Your task to perform on an android device: toggle location history Image 0: 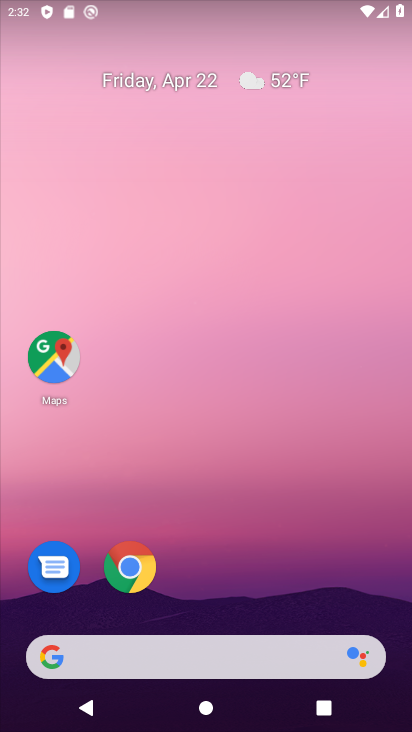
Step 0: drag from (220, 560) to (162, 88)
Your task to perform on an android device: toggle location history Image 1: 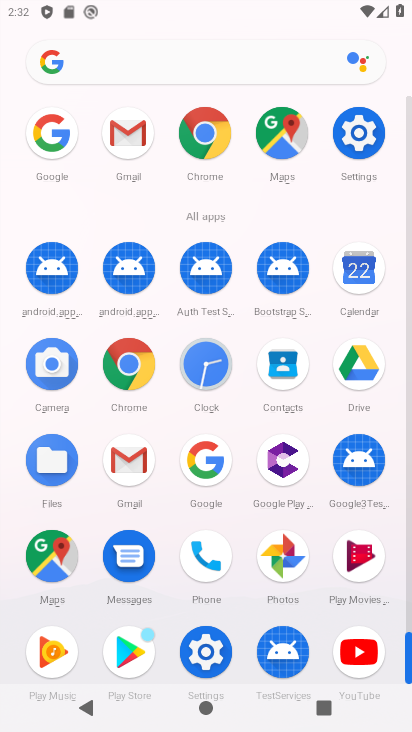
Step 1: click (373, 130)
Your task to perform on an android device: toggle location history Image 2: 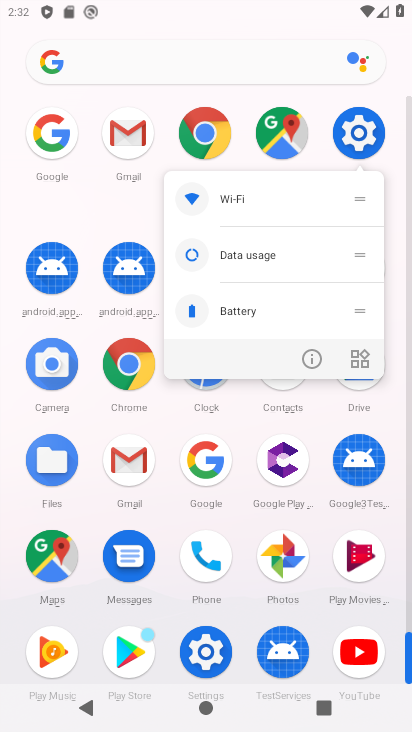
Step 2: click (349, 138)
Your task to perform on an android device: toggle location history Image 3: 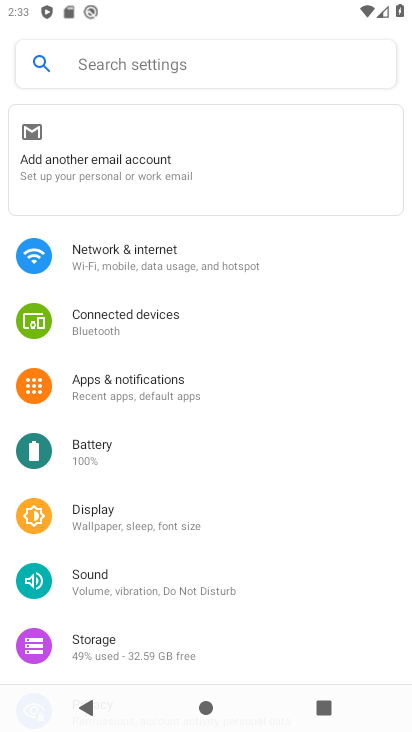
Step 3: drag from (185, 555) to (192, 242)
Your task to perform on an android device: toggle location history Image 4: 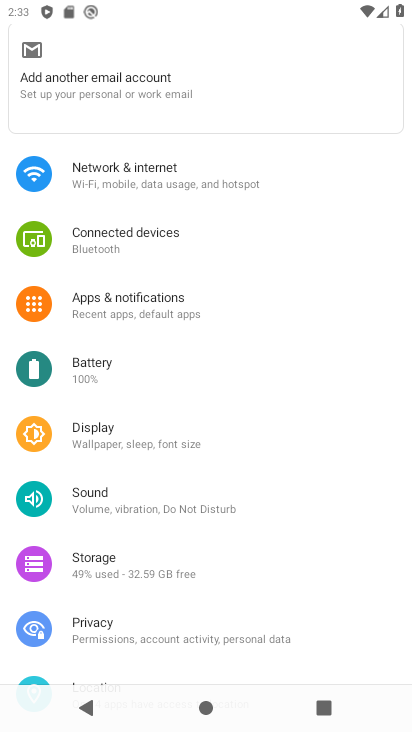
Step 4: drag from (186, 543) to (167, 183)
Your task to perform on an android device: toggle location history Image 5: 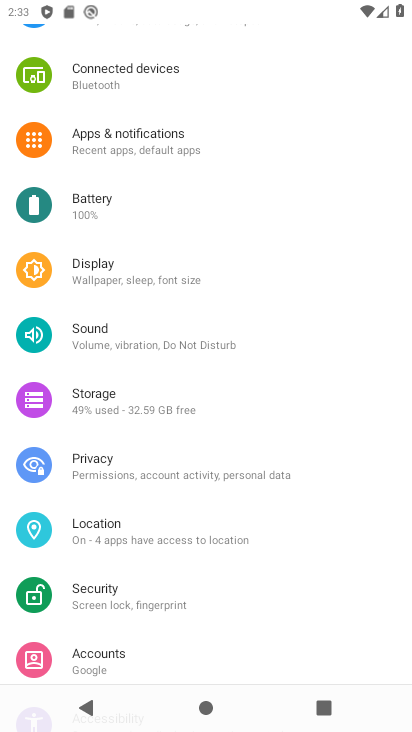
Step 5: click (168, 538)
Your task to perform on an android device: toggle location history Image 6: 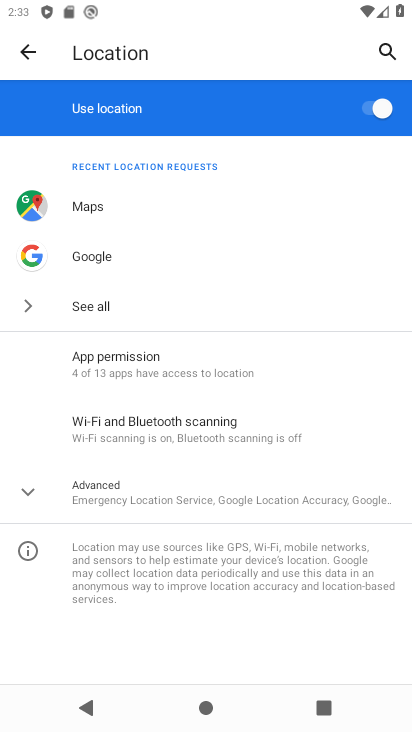
Step 6: click (185, 429)
Your task to perform on an android device: toggle location history Image 7: 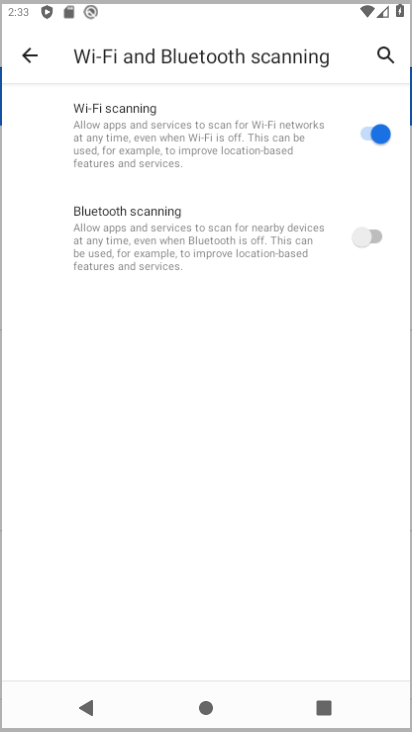
Step 7: click (177, 488)
Your task to perform on an android device: toggle location history Image 8: 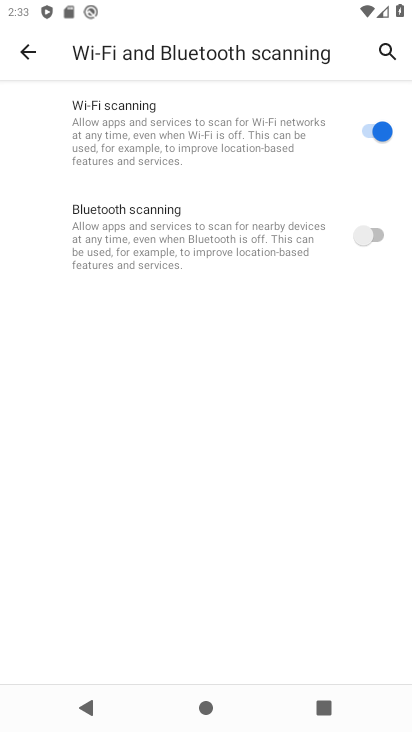
Step 8: click (32, 50)
Your task to perform on an android device: toggle location history Image 9: 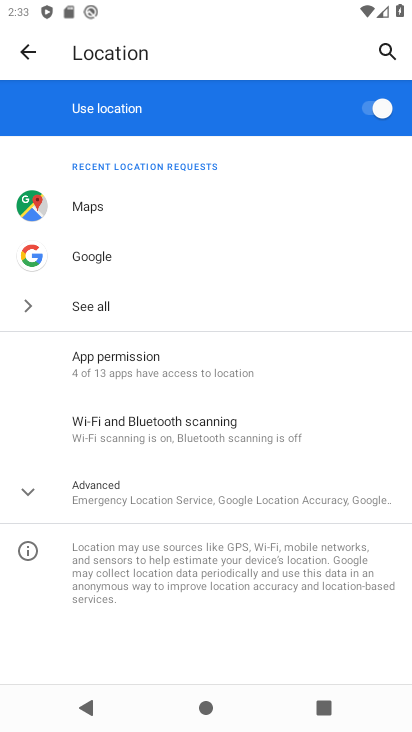
Step 9: click (142, 485)
Your task to perform on an android device: toggle location history Image 10: 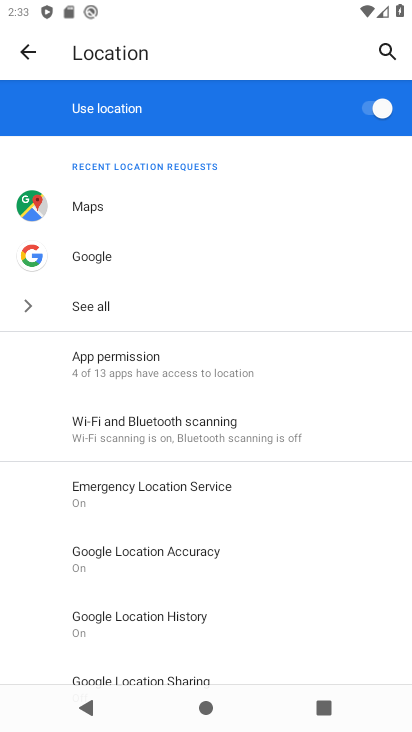
Step 10: click (193, 614)
Your task to perform on an android device: toggle location history Image 11: 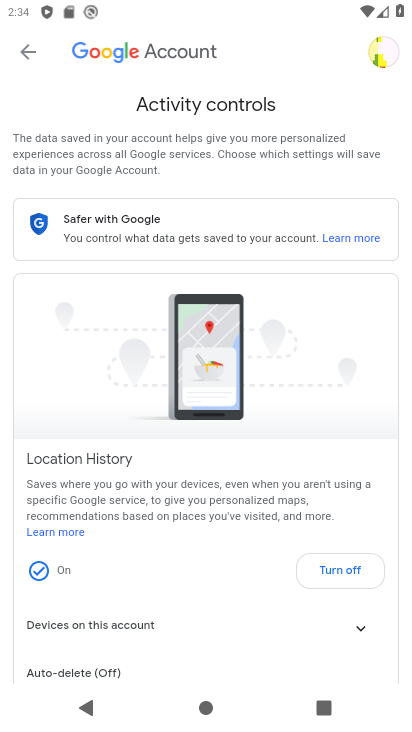
Step 11: click (334, 565)
Your task to perform on an android device: toggle location history Image 12: 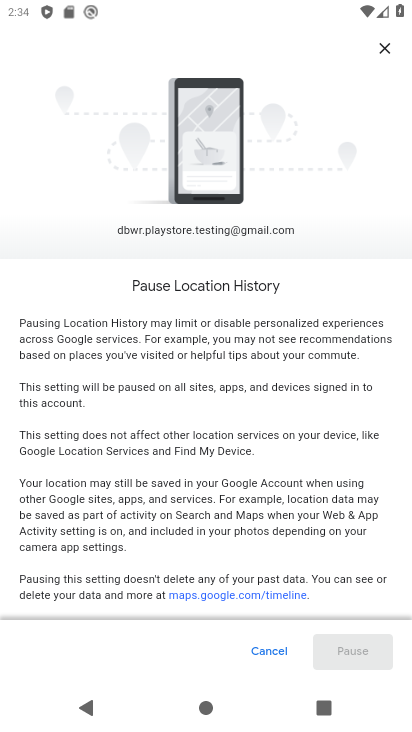
Step 12: drag from (247, 517) to (200, 112)
Your task to perform on an android device: toggle location history Image 13: 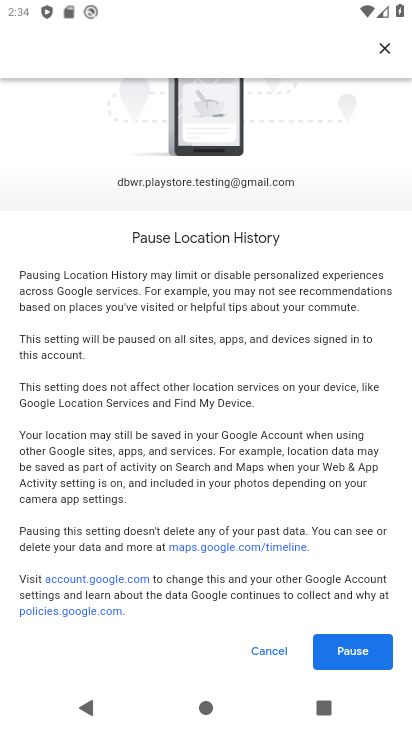
Step 13: drag from (192, 523) to (199, 179)
Your task to perform on an android device: toggle location history Image 14: 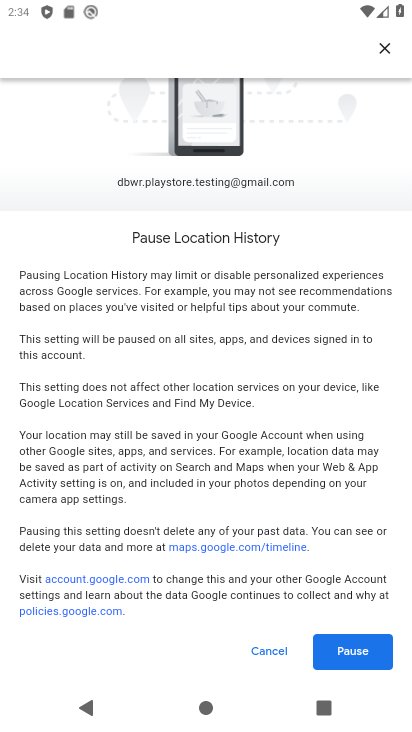
Step 14: click (367, 654)
Your task to perform on an android device: toggle location history Image 15: 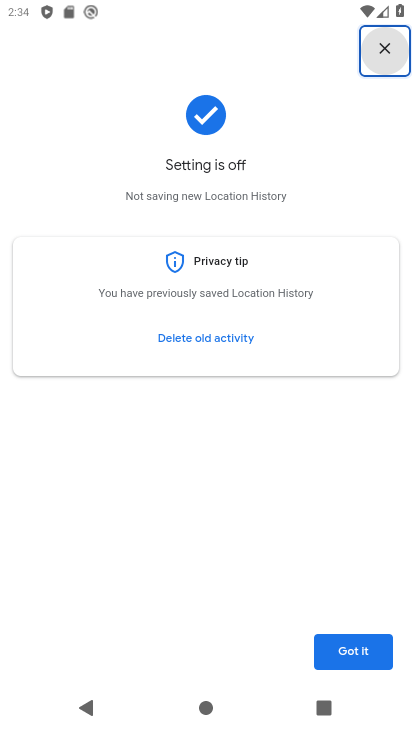
Step 15: click (363, 649)
Your task to perform on an android device: toggle location history Image 16: 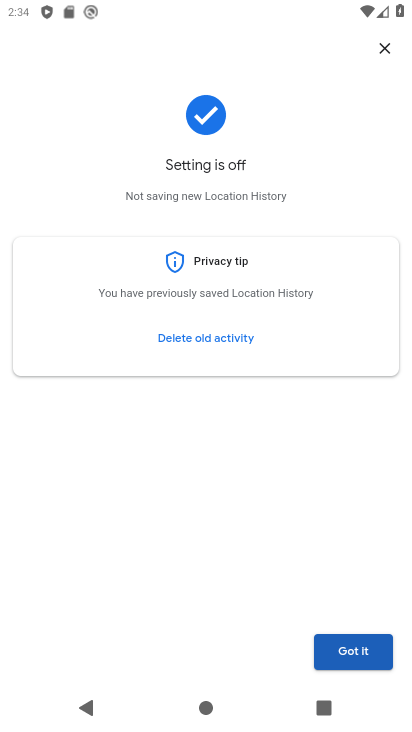
Step 16: click (356, 646)
Your task to perform on an android device: toggle location history Image 17: 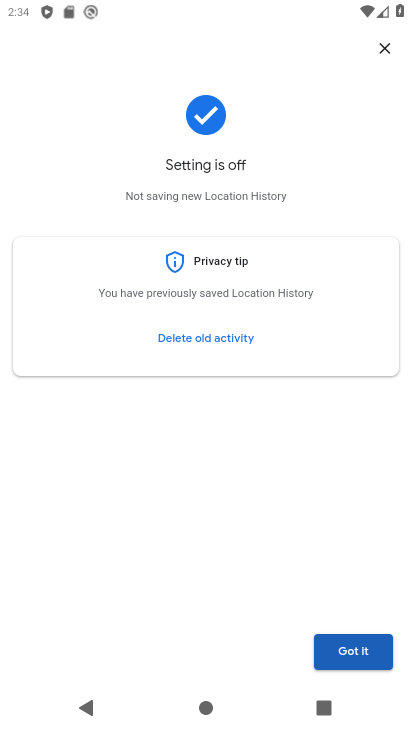
Step 17: click (352, 648)
Your task to perform on an android device: toggle location history Image 18: 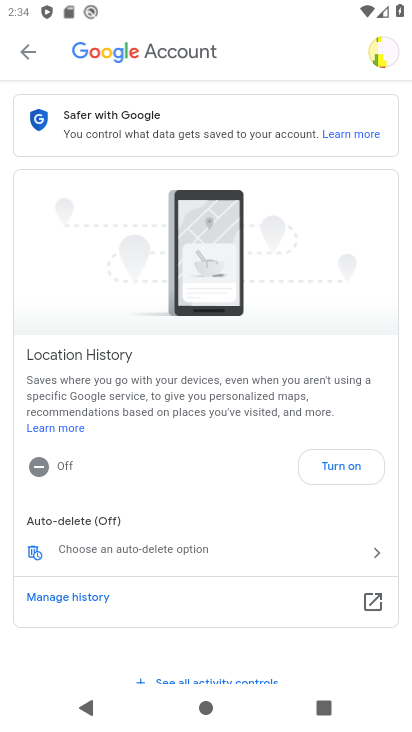
Step 18: task complete